Your task to perform on an android device: turn on wifi Image 0: 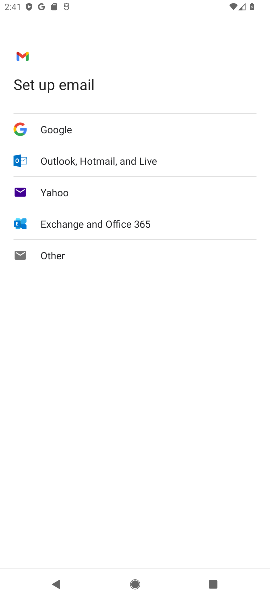
Step 0: press home button
Your task to perform on an android device: turn on wifi Image 1: 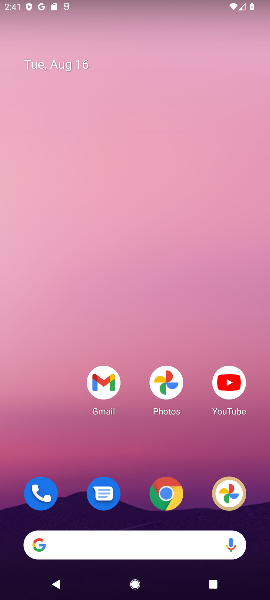
Step 1: drag from (60, 450) to (54, 77)
Your task to perform on an android device: turn on wifi Image 2: 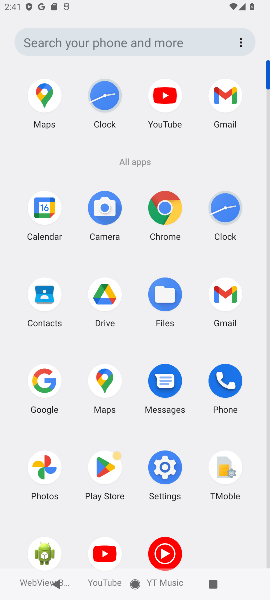
Step 2: click (160, 474)
Your task to perform on an android device: turn on wifi Image 3: 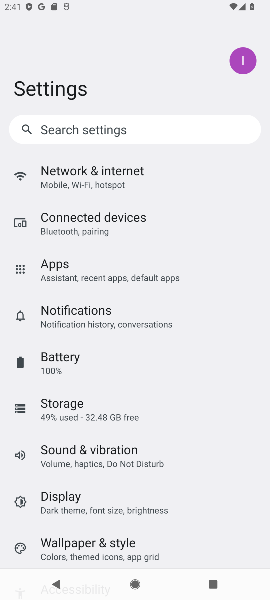
Step 3: drag from (229, 405) to (242, 326)
Your task to perform on an android device: turn on wifi Image 4: 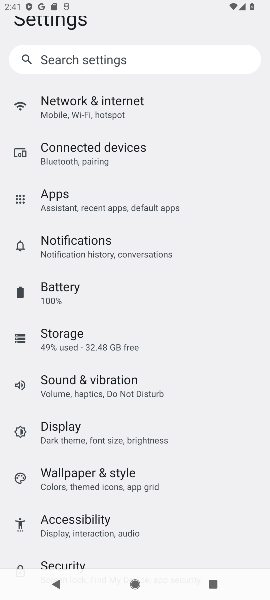
Step 4: drag from (226, 425) to (236, 330)
Your task to perform on an android device: turn on wifi Image 5: 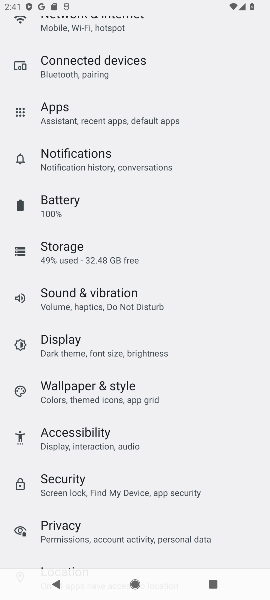
Step 5: drag from (234, 431) to (240, 324)
Your task to perform on an android device: turn on wifi Image 6: 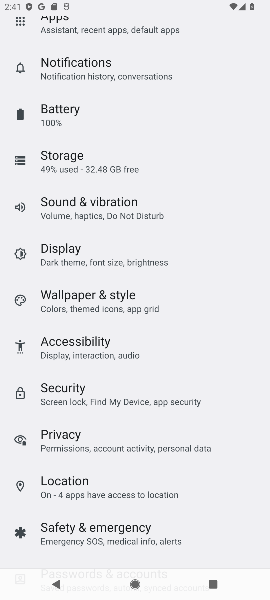
Step 6: drag from (226, 460) to (247, 323)
Your task to perform on an android device: turn on wifi Image 7: 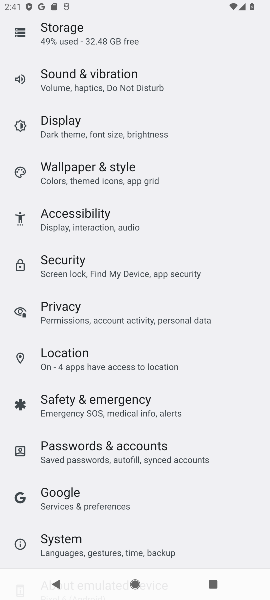
Step 7: drag from (231, 483) to (249, 347)
Your task to perform on an android device: turn on wifi Image 8: 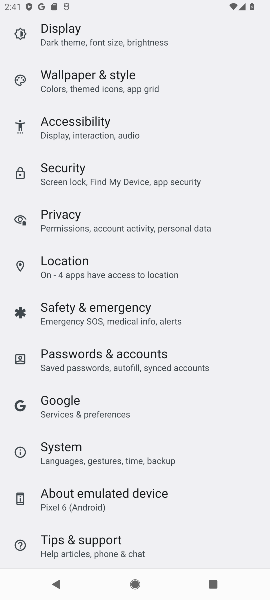
Step 8: drag from (244, 214) to (248, 312)
Your task to perform on an android device: turn on wifi Image 9: 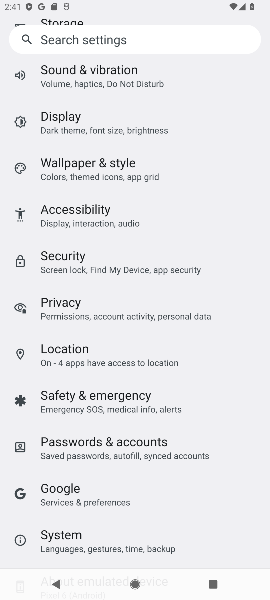
Step 9: drag from (246, 204) to (247, 302)
Your task to perform on an android device: turn on wifi Image 10: 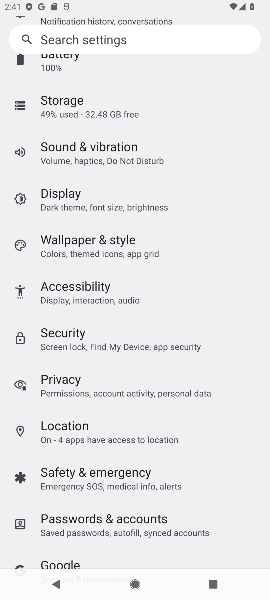
Step 10: drag from (242, 186) to (233, 286)
Your task to perform on an android device: turn on wifi Image 11: 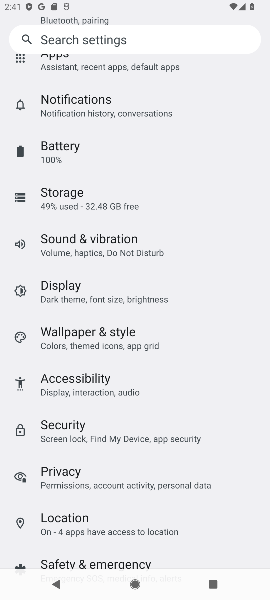
Step 11: drag from (231, 150) to (229, 340)
Your task to perform on an android device: turn on wifi Image 12: 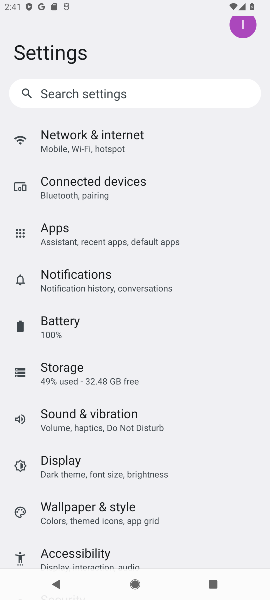
Step 12: drag from (235, 140) to (163, 165)
Your task to perform on an android device: turn on wifi Image 13: 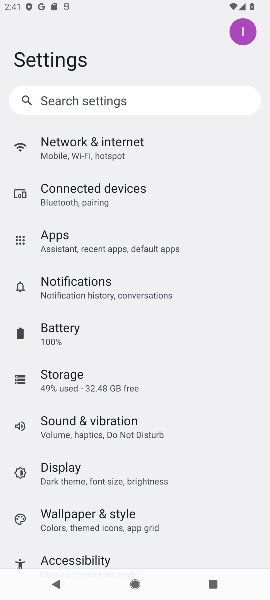
Step 13: click (141, 138)
Your task to perform on an android device: turn on wifi Image 14: 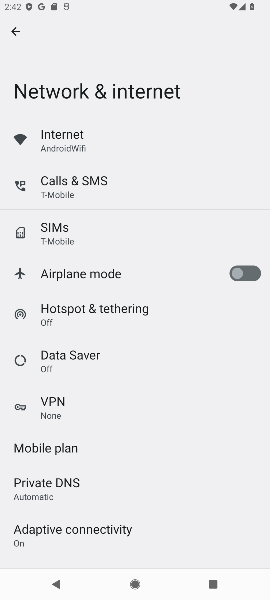
Step 14: click (67, 130)
Your task to perform on an android device: turn on wifi Image 15: 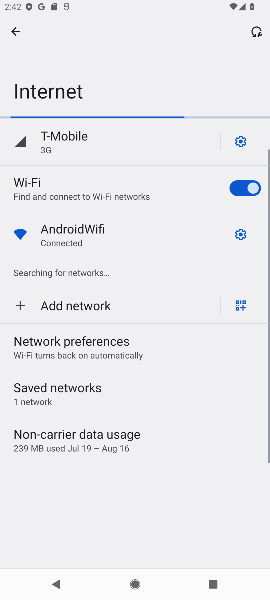
Step 15: task complete